Your task to perform on an android device: turn off airplane mode Image 0: 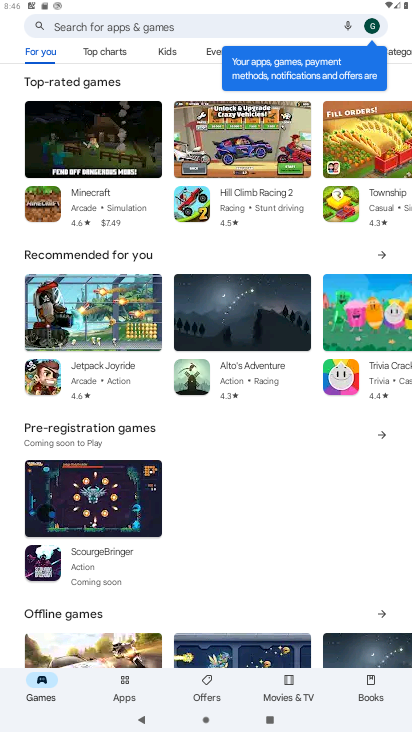
Step 0: press home button
Your task to perform on an android device: turn off airplane mode Image 1: 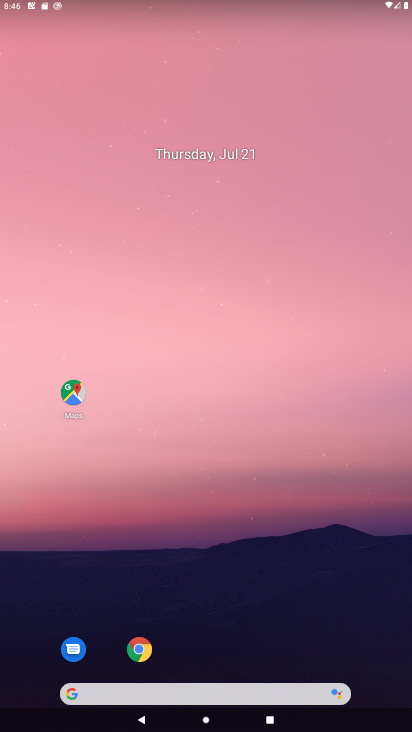
Step 1: drag from (179, 673) to (199, 92)
Your task to perform on an android device: turn off airplane mode Image 2: 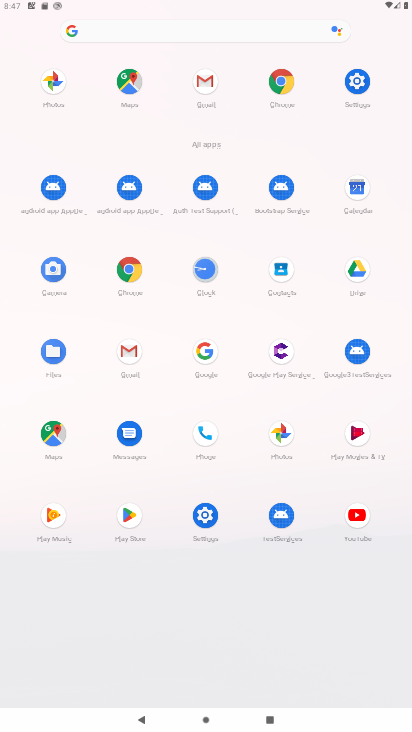
Step 2: click (355, 86)
Your task to perform on an android device: turn off airplane mode Image 3: 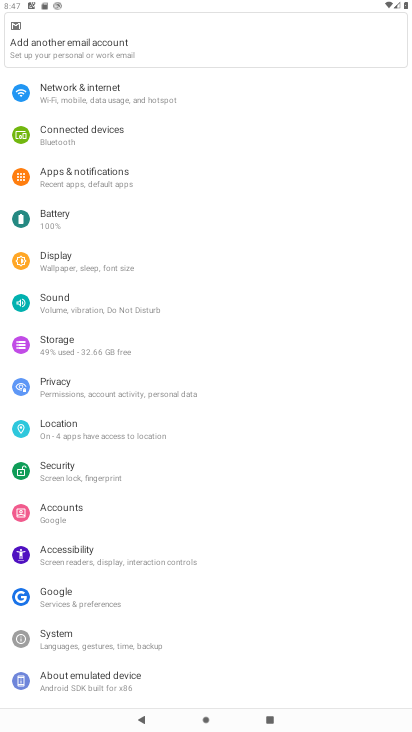
Step 3: click (85, 92)
Your task to perform on an android device: turn off airplane mode Image 4: 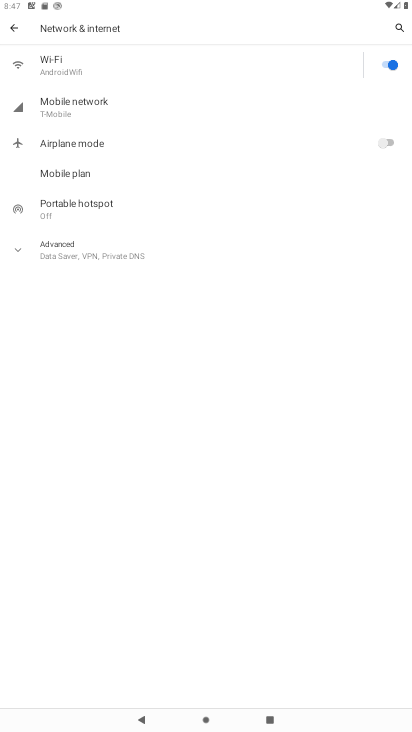
Step 4: task complete